Your task to perform on an android device: set default search engine in the chrome app Image 0: 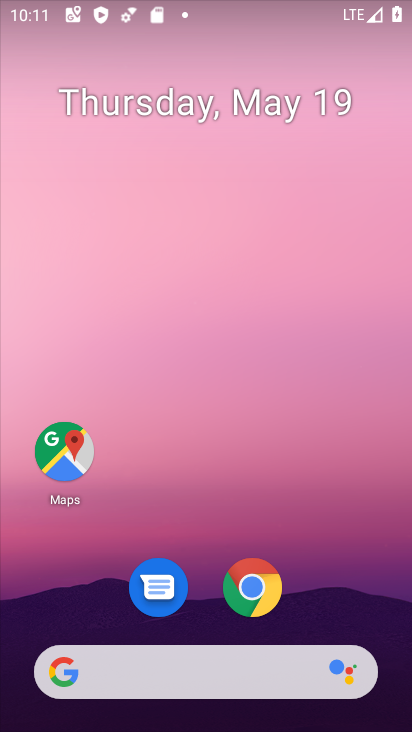
Step 0: click (253, 574)
Your task to perform on an android device: set default search engine in the chrome app Image 1: 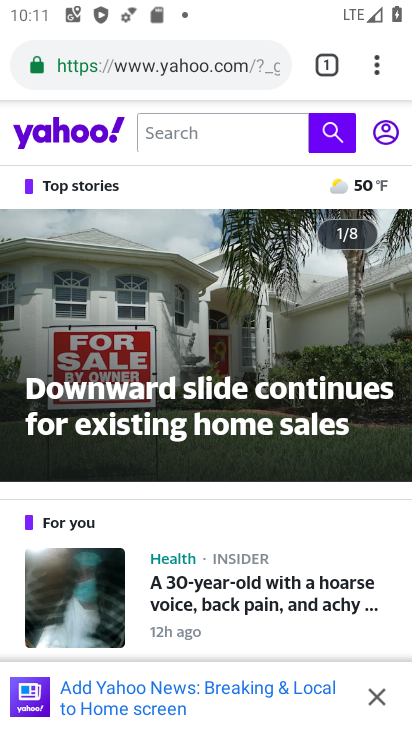
Step 1: click (363, 72)
Your task to perform on an android device: set default search engine in the chrome app Image 2: 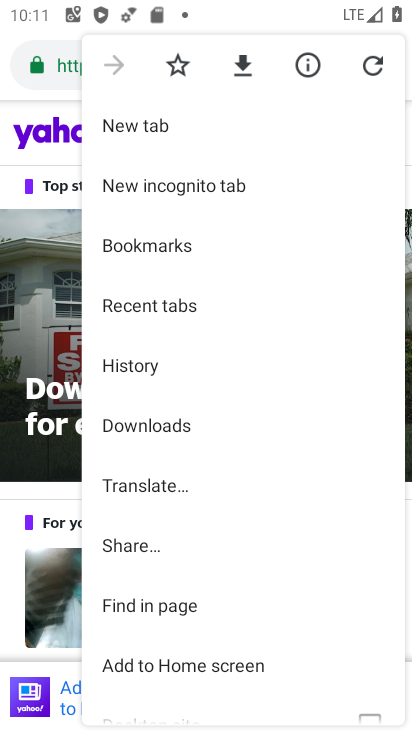
Step 2: drag from (130, 656) to (244, 137)
Your task to perform on an android device: set default search engine in the chrome app Image 3: 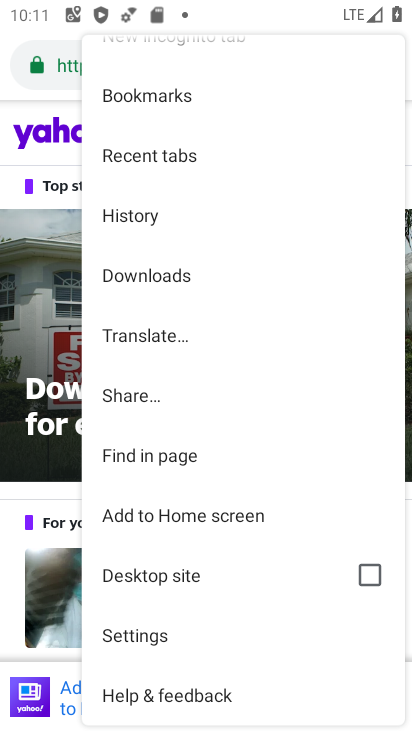
Step 3: click (162, 639)
Your task to perform on an android device: set default search engine in the chrome app Image 4: 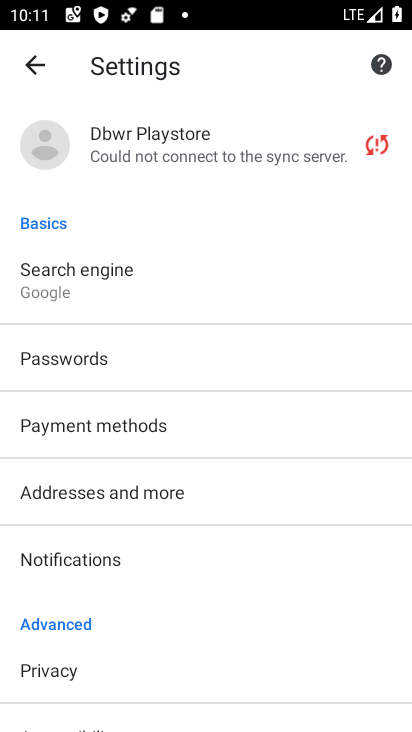
Step 4: click (138, 288)
Your task to perform on an android device: set default search engine in the chrome app Image 5: 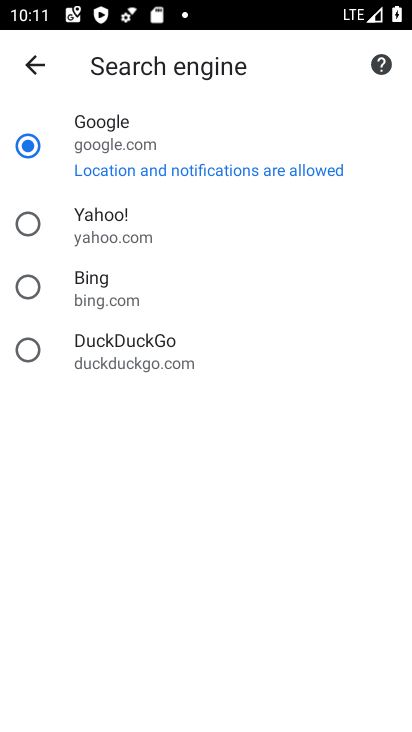
Step 5: click (138, 288)
Your task to perform on an android device: set default search engine in the chrome app Image 6: 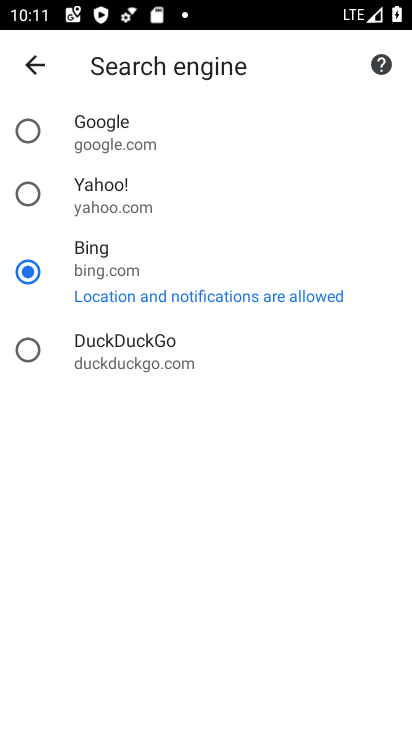
Step 6: task complete